Your task to perform on an android device: Open Google Chrome and open the bookmarks view Image 0: 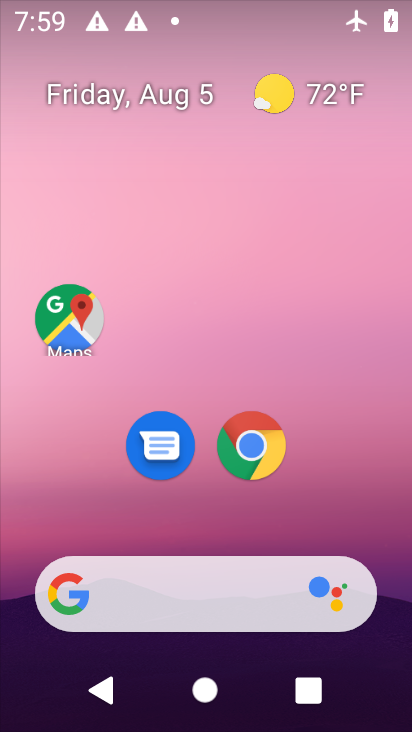
Step 0: click (255, 444)
Your task to perform on an android device: Open Google Chrome and open the bookmarks view Image 1: 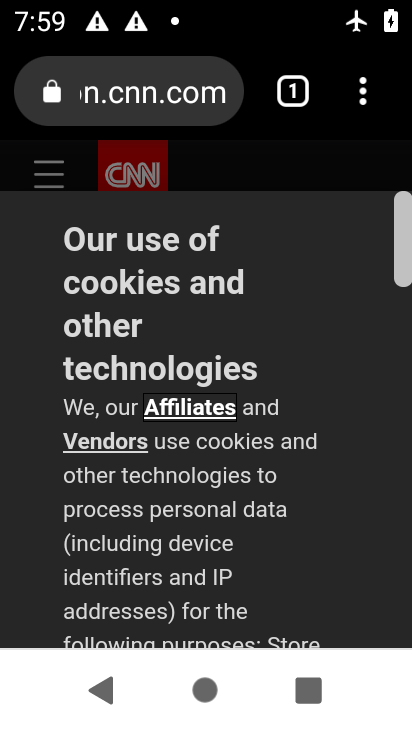
Step 1: click (362, 83)
Your task to perform on an android device: Open Google Chrome and open the bookmarks view Image 2: 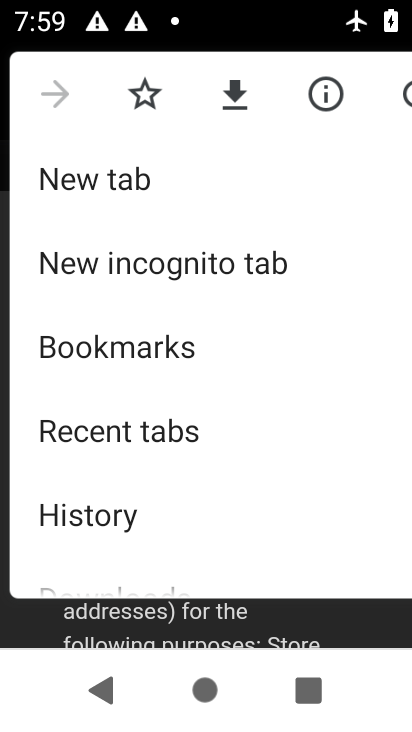
Step 2: click (146, 345)
Your task to perform on an android device: Open Google Chrome and open the bookmarks view Image 3: 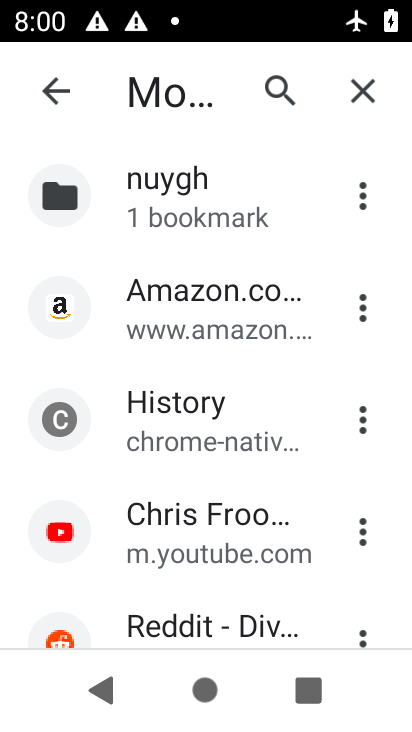
Step 3: task complete